Your task to perform on an android device: toggle notification dots Image 0: 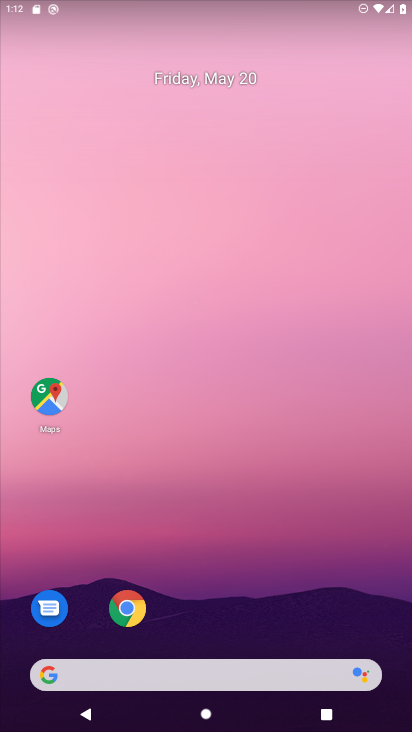
Step 0: press home button
Your task to perform on an android device: toggle notification dots Image 1: 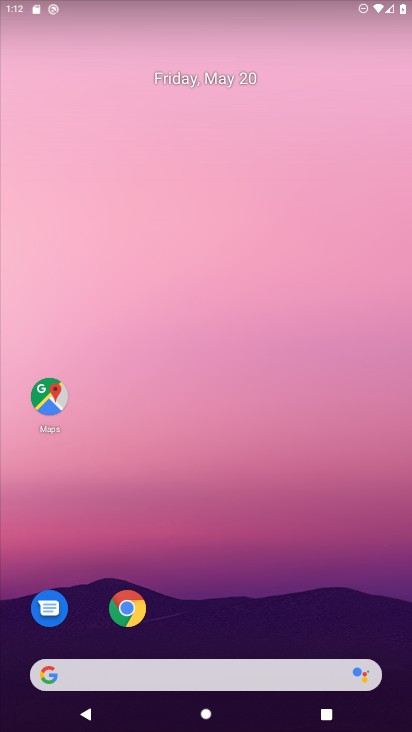
Step 1: drag from (284, 565) to (259, 38)
Your task to perform on an android device: toggle notification dots Image 2: 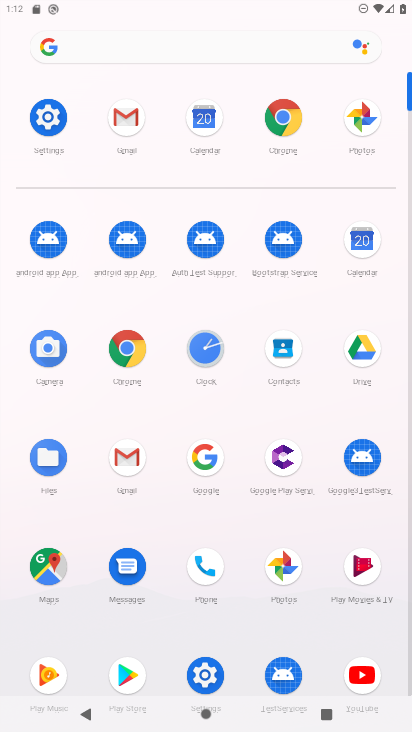
Step 2: click (46, 101)
Your task to perform on an android device: toggle notification dots Image 3: 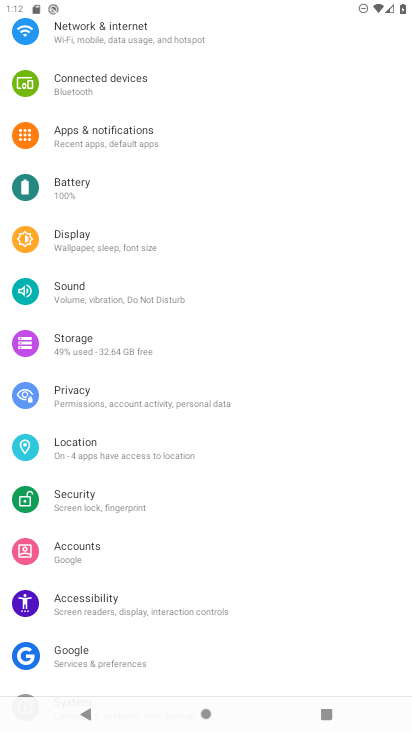
Step 3: click (91, 138)
Your task to perform on an android device: toggle notification dots Image 4: 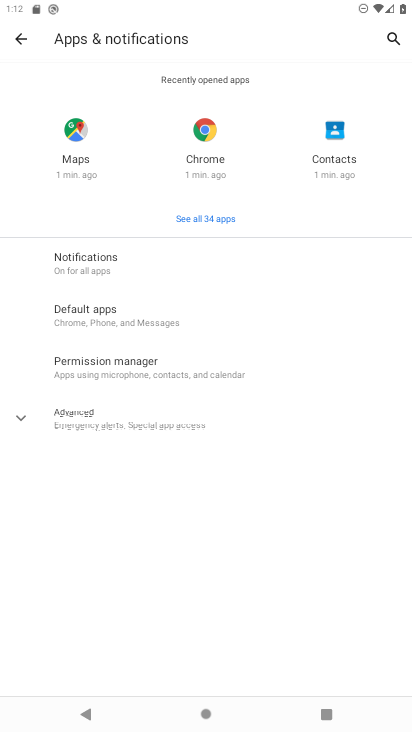
Step 4: click (135, 270)
Your task to perform on an android device: toggle notification dots Image 5: 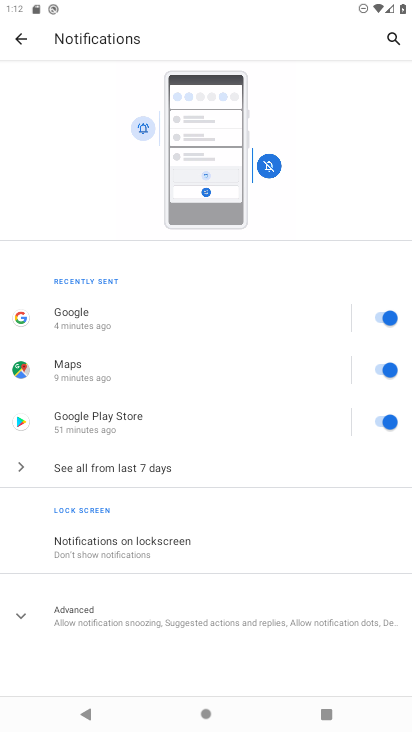
Step 5: click (106, 616)
Your task to perform on an android device: toggle notification dots Image 6: 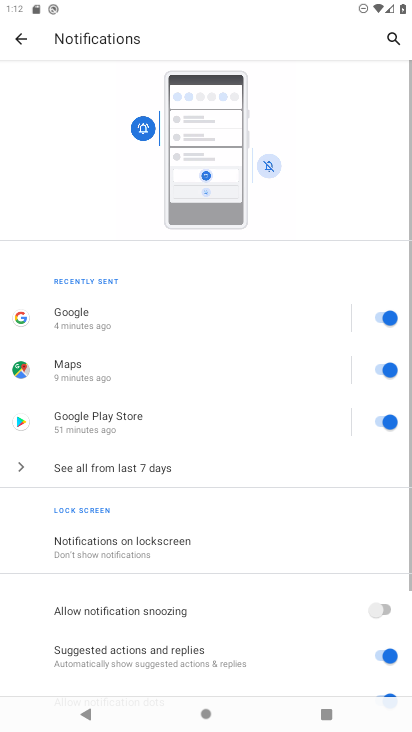
Step 6: drag from (105, 616) to (115, 408)
Your task to perform on an android device: toggle notification dots Image 7: 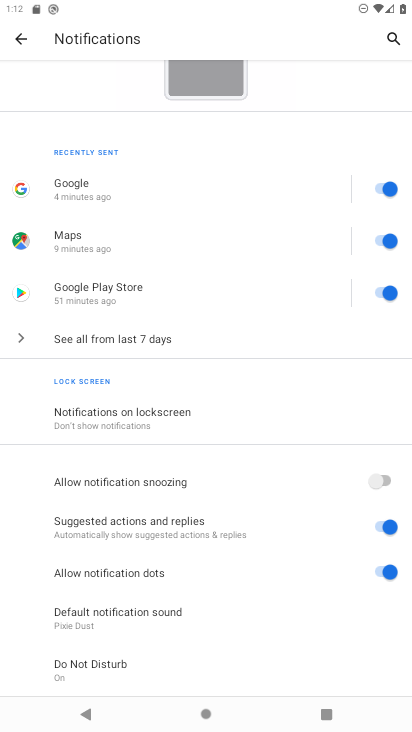
Step 7: click (186, 573)
Your task to perform on an android device: toggle notification dots Image 8: 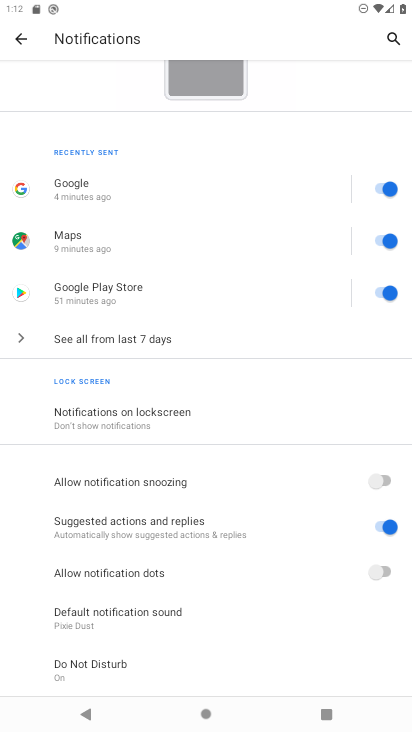
Step 8: task complete